Your task to perform on an android device: Open Google Chrome Image 0: 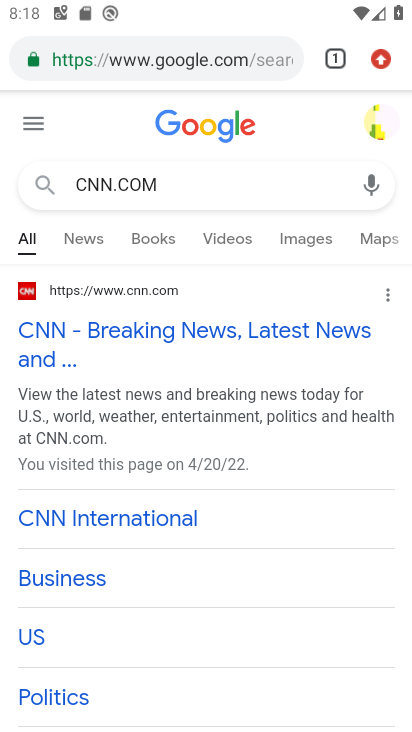
Step 0: press home button
Your task to perform on an android device: Open Google Chrome Image 1: 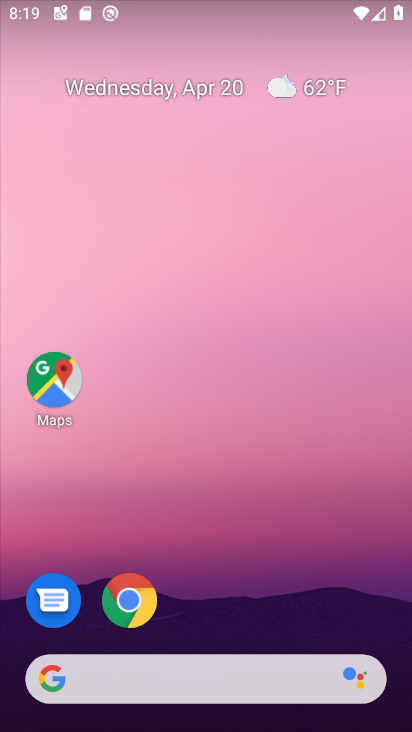
Step 1: click (132, 602)
Your task to perform on an android device: Open Google Chrome Image 2: 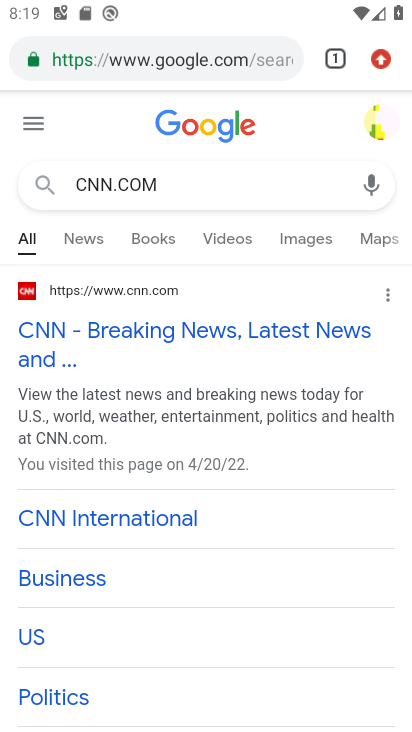
Step 2: task complete